Your task to perform on an android device: turn on sleep mode Image 0: 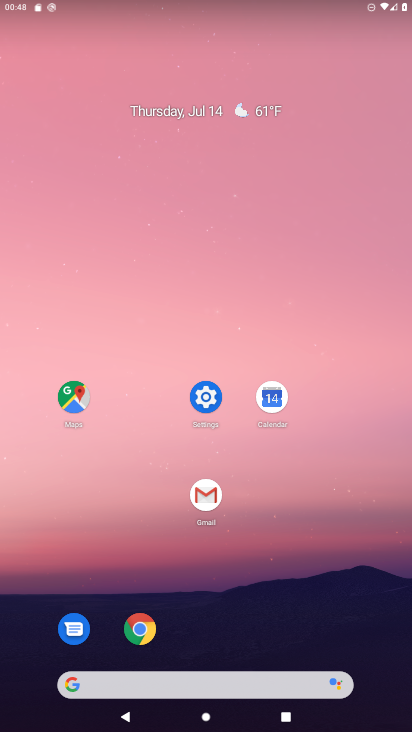
Step 0: click (206, 393)
Your task to perform on an android device: turn on sleep mode Image 1: 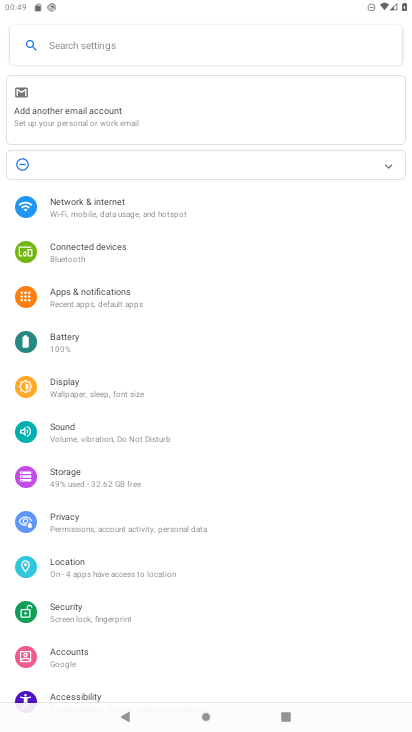
Step 1: click (67, 377)
Your task to perform on an android device: turn on sleep mode Image 2: 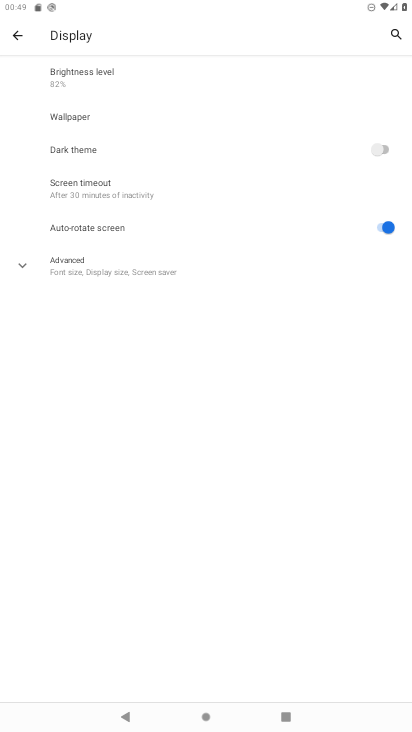
Step 2: task complete